Your task to perform on an android device: Open the calendar and show me this week's events Image 0: 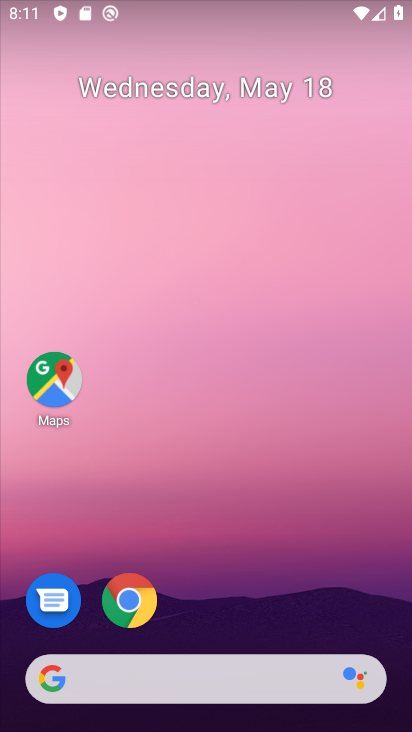
Step 0: press home button
Your task to perform on an android device: Open the calendar and show me this week's events Image 1: 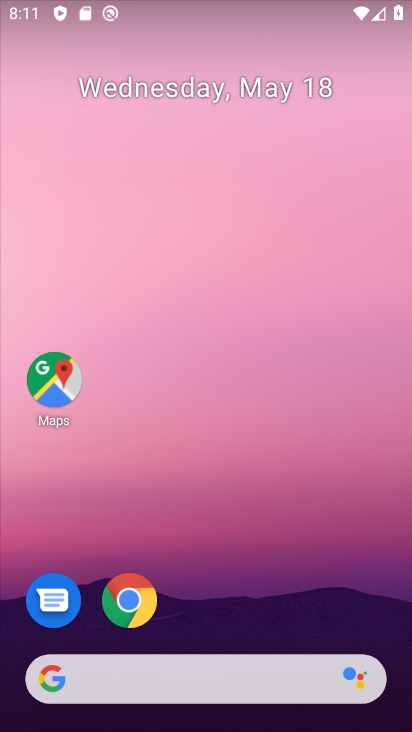
Step 1: drag from (23, 616) to (306, 209)
Your task to perform on an android device: Open the calendar and show me this week's events Image 2: 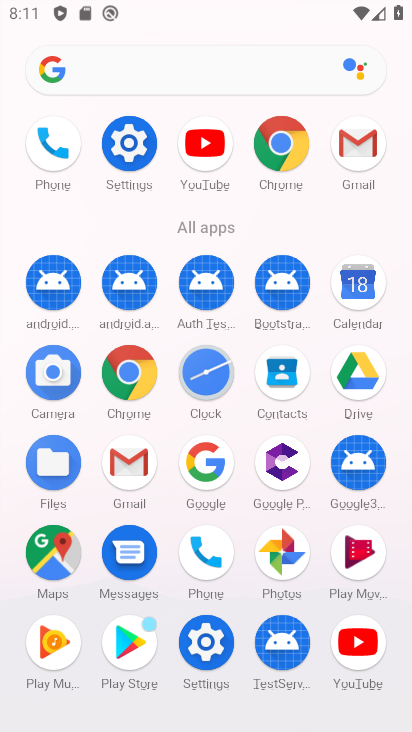
Step 2: click (353, 269)
Your task to perform on an android device: Open the calendar and show me this week's events Image 3: 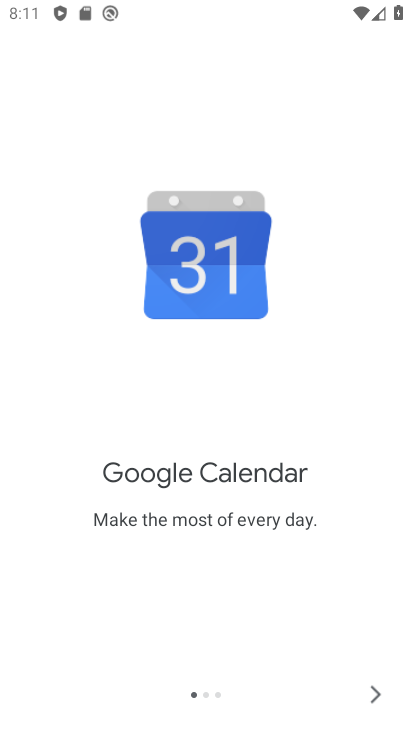
Step 3: click (375, 698)
Your task to perform on an android device: Open the calendar and show me this week's events Image 4: 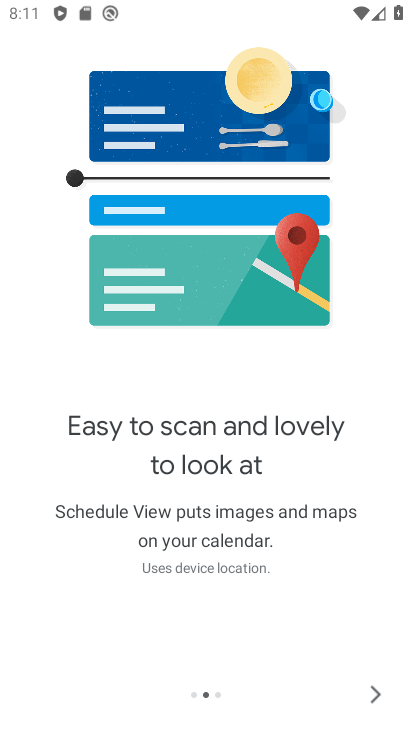
Step 4: click (365, 693)
Your task to perform on an android device: Open the calendar and show me this week's events Image 5: 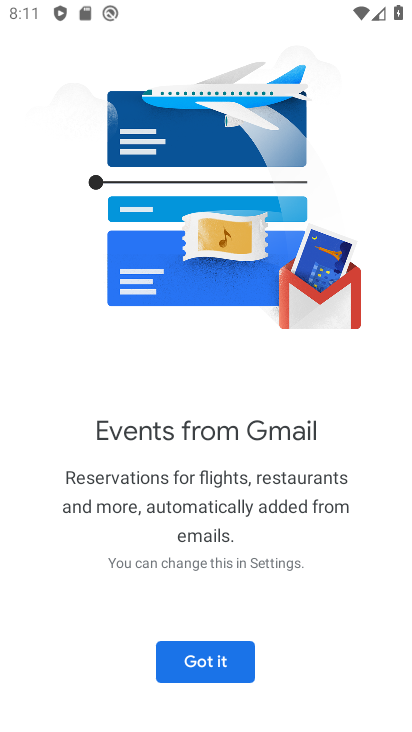
Step 5: click (228, 665)
Your task to perform on an android device: Open the calendar and show me this week's events Image 6: 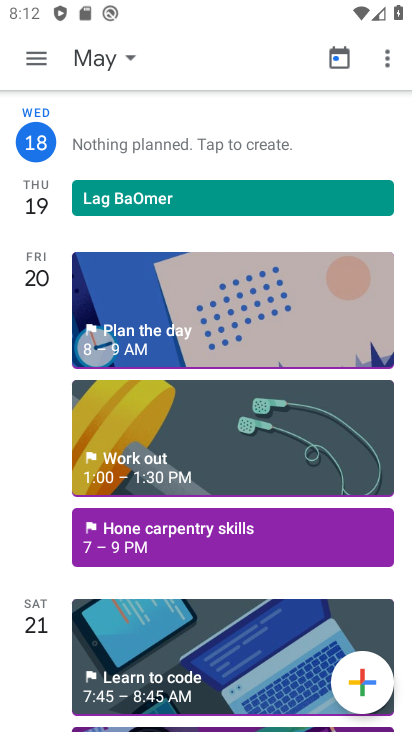
Step 6: click (82, 55)
Your task to perform on an android device: Open the calendar and show me this week's events Image 7: 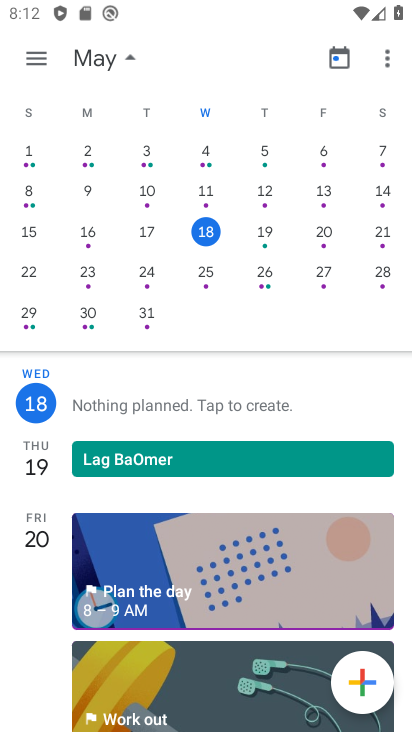
Step 7: click (258, 232)
Your task to perform on an android device: Open the calendar and show me this week's events Image 8: 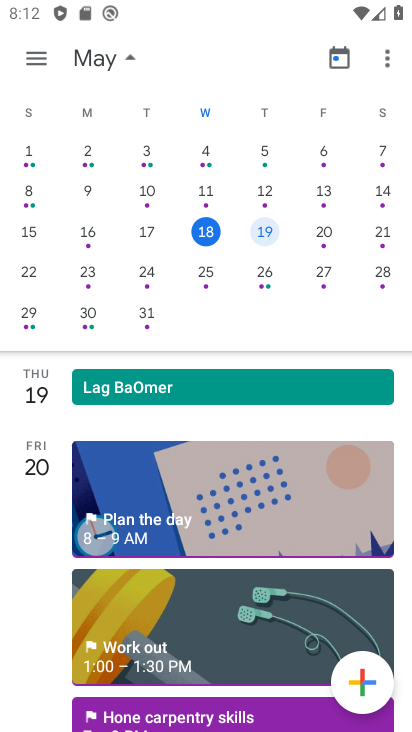
Step 8: click (317, 233)
Your task to perform on an android device: Open the calendar and show me this week's events Image 9: 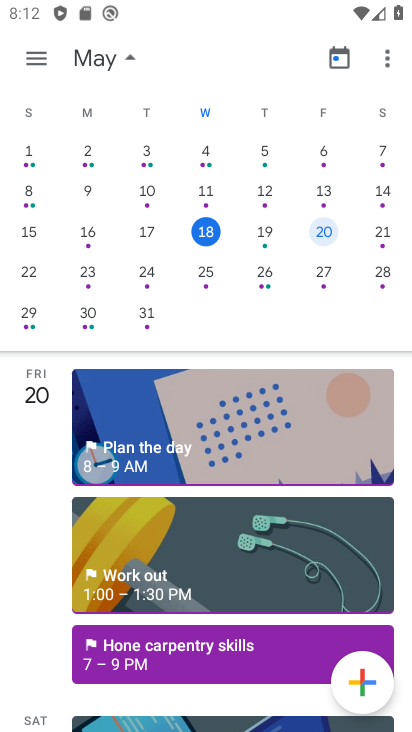
Step 9: click (384, 236)
Your task to perform on an android device: Open the calendar and show me this week's events Image 10: 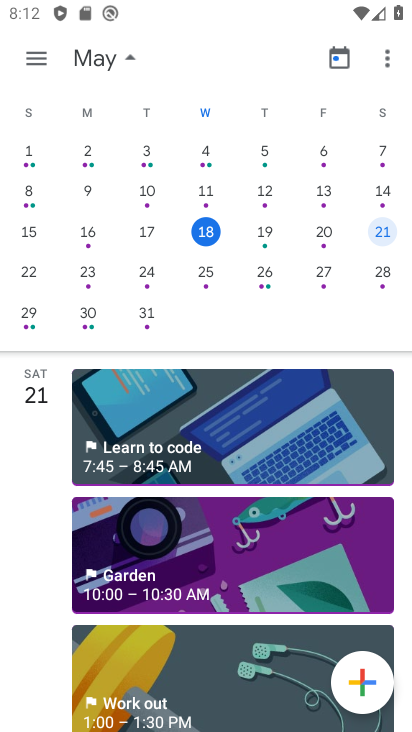
Step 10: task complete